Your task to perform on an android device: turn off wifi Image 0: 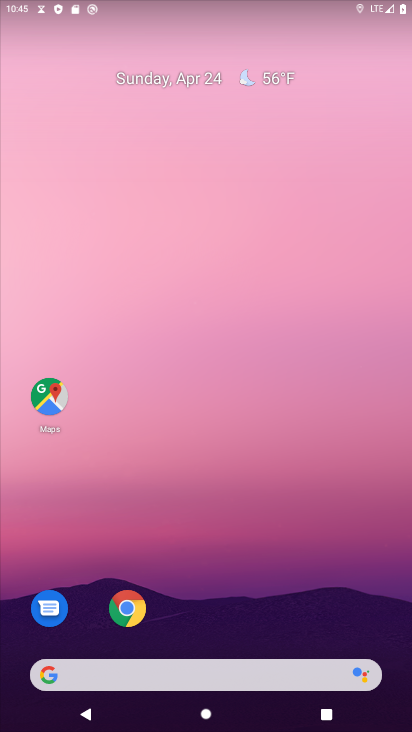
Step 0: drag from (191, 635) to (146, 5)
Your task to perform on an android device: turn off wifi Image 1: 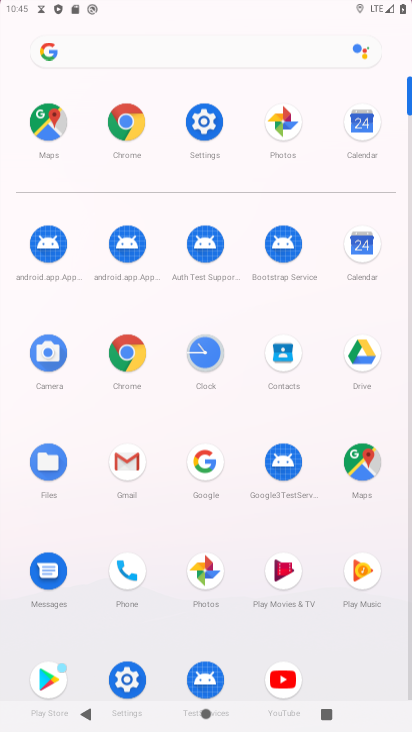
Step 1: click (197, 118)
Your task to perform on an android device: turn off wifi Image 2: 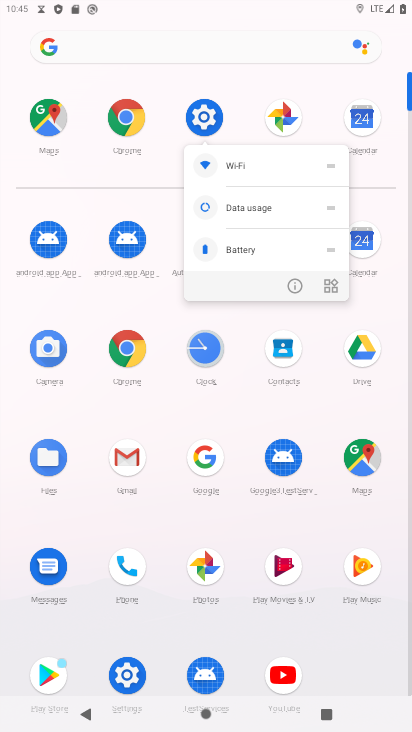
Step 2: click (197, 124)
Your task to perform on an android device: turn off wifi Image 3: 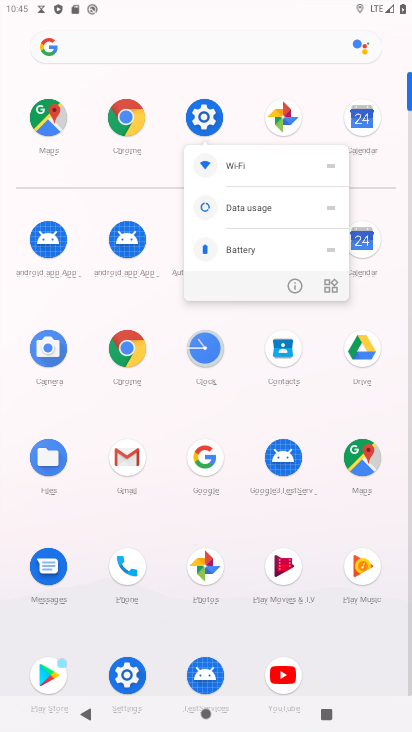
Step 3: click (213, 108)
Your task to perform on an android device: turn off wifi Image 4: 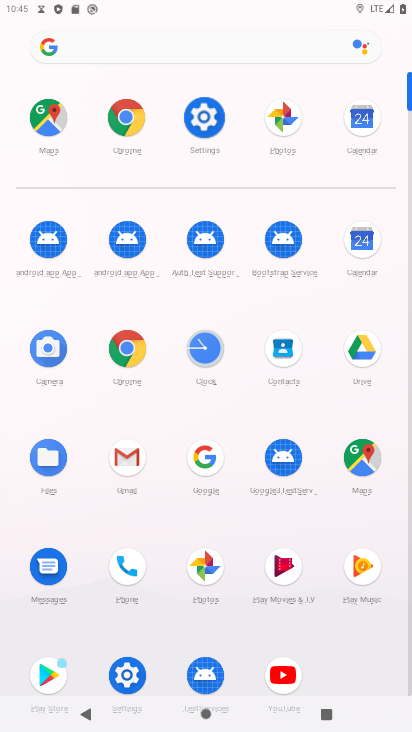
Step 4: click (213, 110)
Your task to perform on an android device: turn off wifi Image 5: 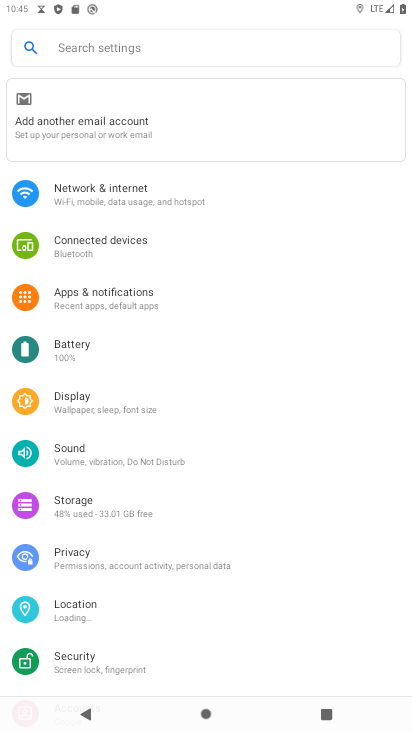
Step 5: click (153, 188)
Your task to perform on an android device: turn off wifi Image 6: 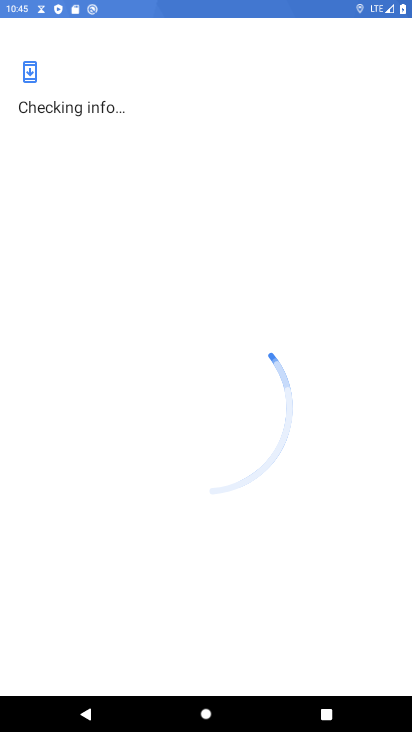
Step 6: press home button
Your task to perform on an android device: turn off wifi Image 7: 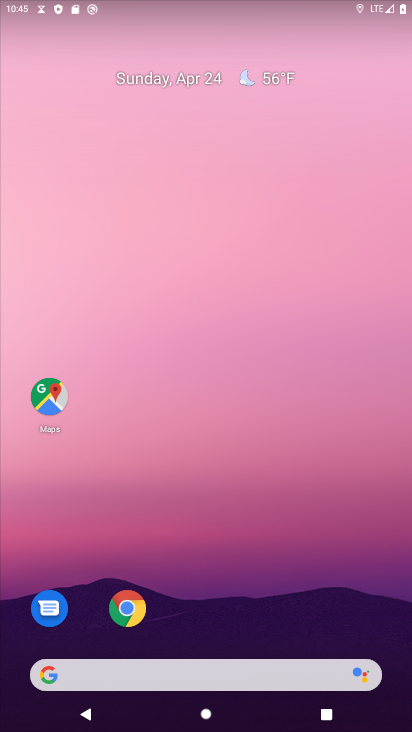
Step 7: drag from (196, 634) to (145, 8)
Your task to perform on an android device: turn off wifi Image 8: 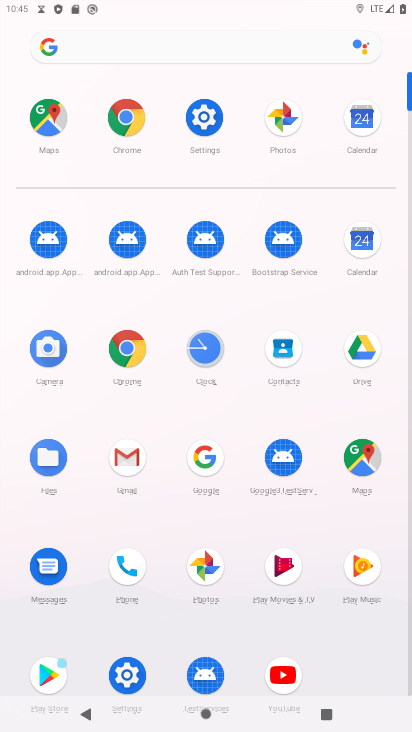
Step 8: click (202, 128)
Your task to perform on an android device: turn off wifi Image 9: 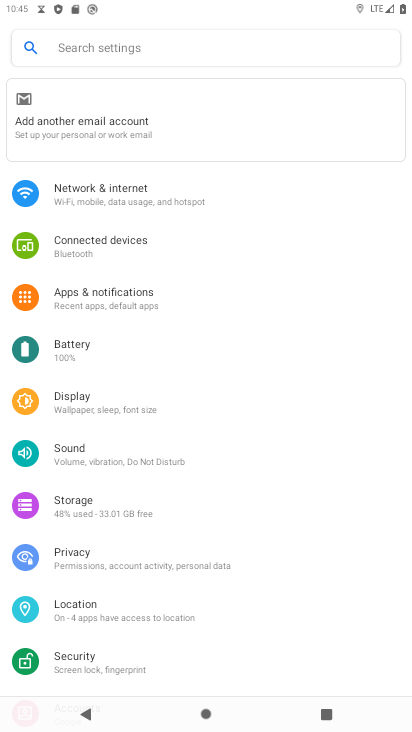
Step 9: click (112, 192)
Your task to perform on an android device: turn off wifi Image 10: 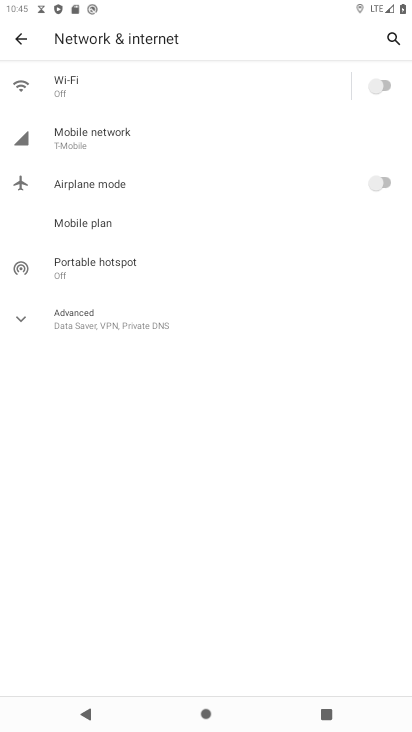
Step 10: drag from (120, 189) to (107, 7)
Your task to perform on an android device: turn off wifi Image 11: 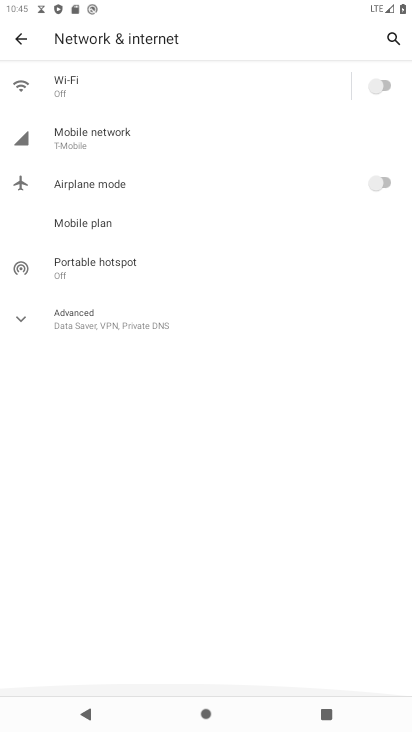
Step 11: click (101, 87)
Your task to perform on an android device: turn off wifi Image 12: 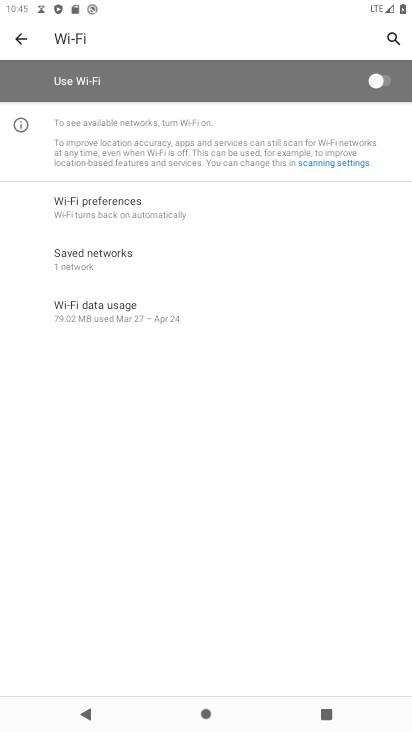
Step 12: task complete